Your task to perform on an android device: Show me popular games on the Play Store Image 0: 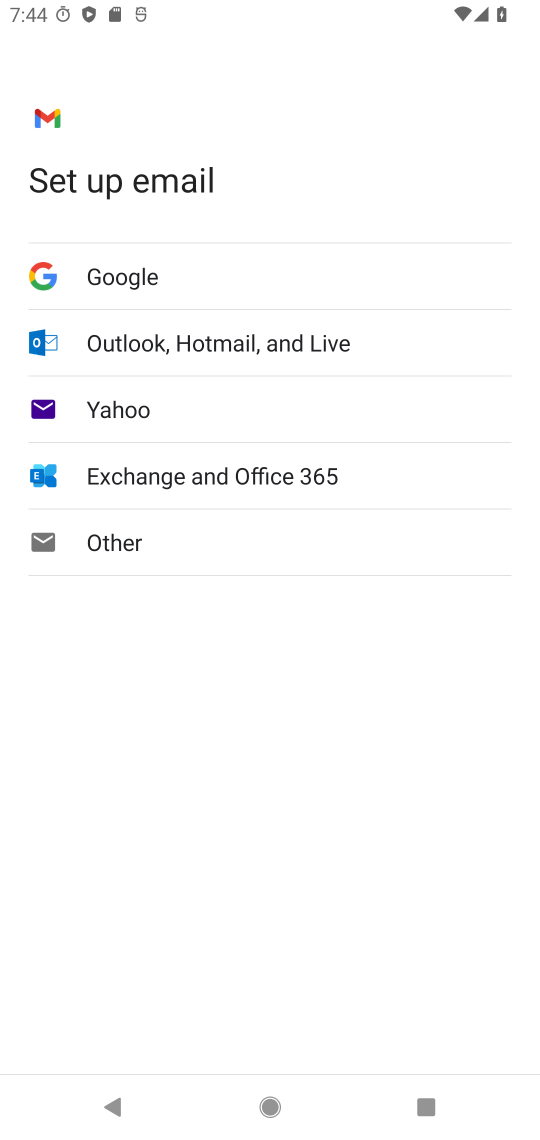
Step 0: press home button
Your task to perform on an android device: Show me popular games on the Play Store Image 1: 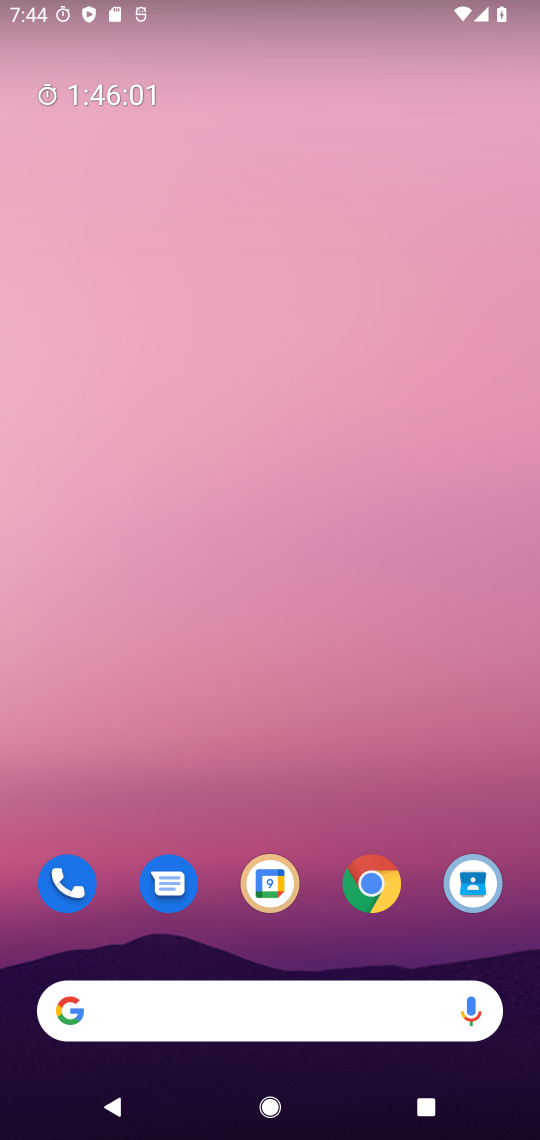
Step 1: drag from (281, 761) to (279, 173)
Your task to perform on an android device: Show me popular games on the Play Store Image 2: 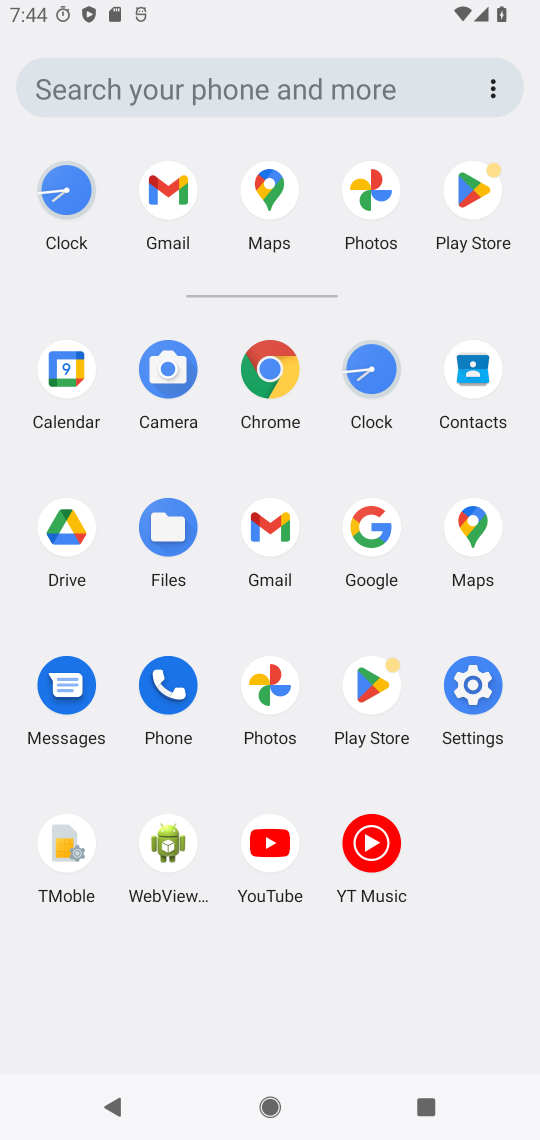
Step 2: click (457, 195)
Your task to perform on an android device: Show me popular games on the Play Store Image 3: 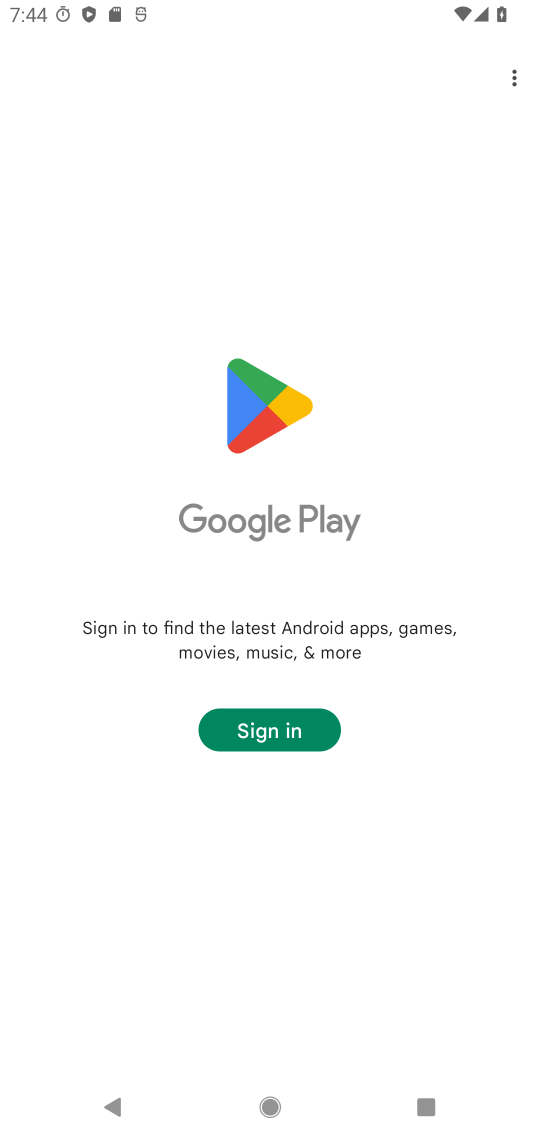
Step 3: task complete